Your task to perform on an android device: Open Maps and search for coffee Image 0: 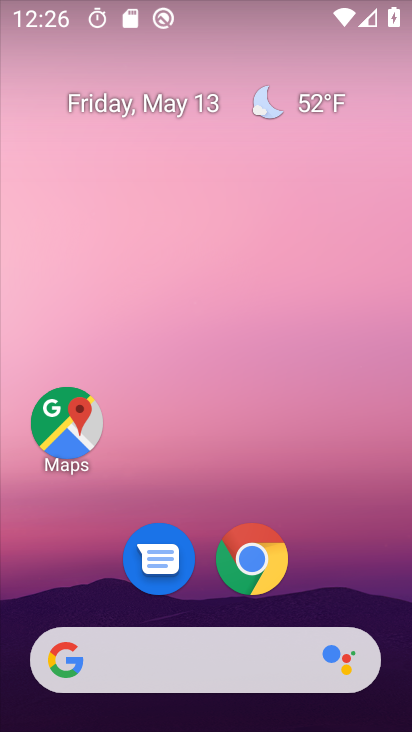
Step 0: drag from (329, 573) to (288, 166)
Your task to perform on an android device: Open Maps and search for coffee Image 1: 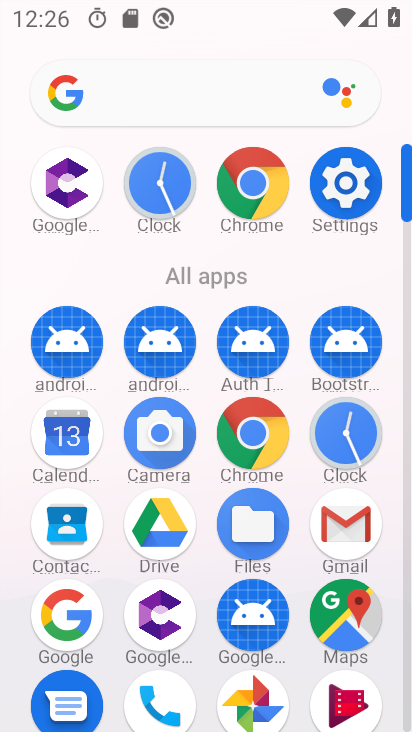
Step 1: click (343, 658)
Your task to perform on an android device: Open Maps and search for coffee Image 2: 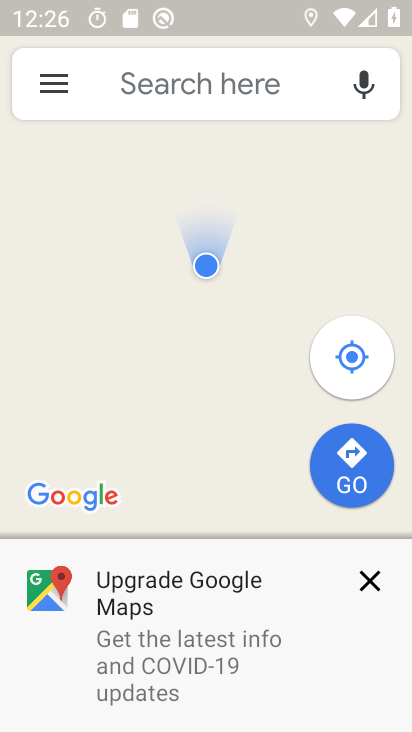
Step 2: click (230, 90)
Your task to perform on an android device: Open Maps and search for coffee Image 3: 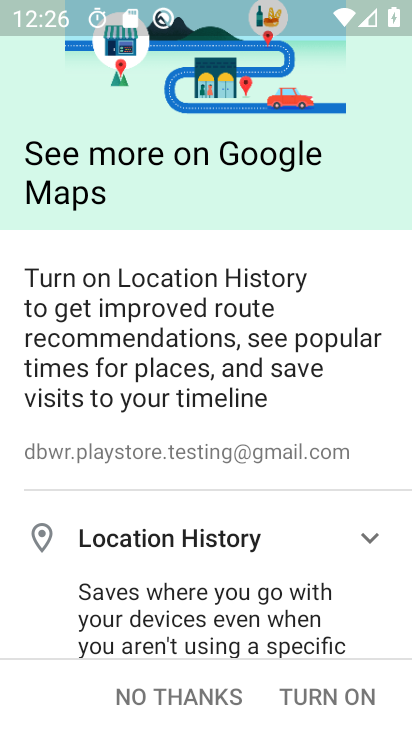
Step 3: click (195, 696)
Your task to perform on an android device: Open Maps and search for coffee Image 4: 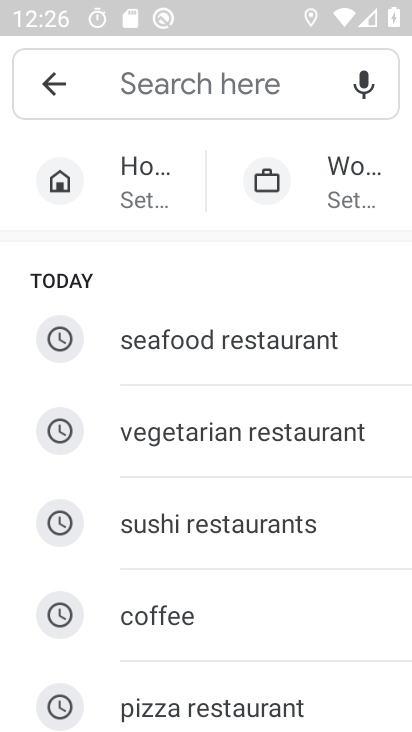
Step 4: click (190, 604)
Your task to perform on an android device: Open Maps and search for coffee Image 5: 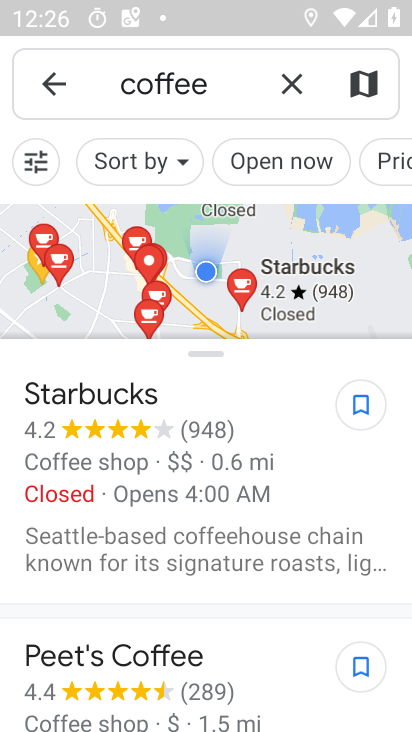
Step 5: task complete